Your task to perform on an android device: add a label to a message in the gmail app Image 0: 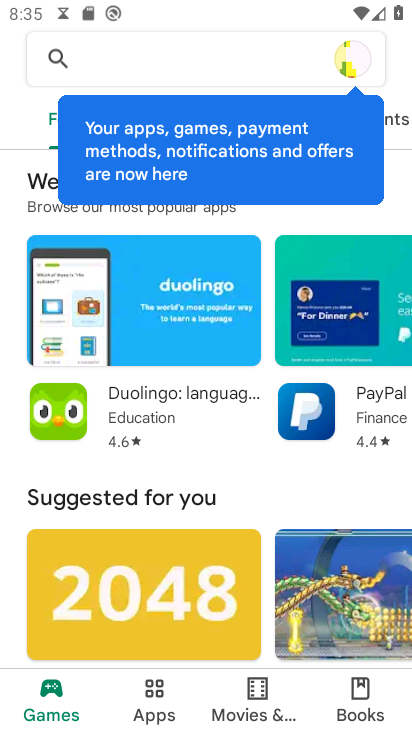
Step 0: press home button
Your task to perform on an android device: add a label to a message in the gmail app Image 1: 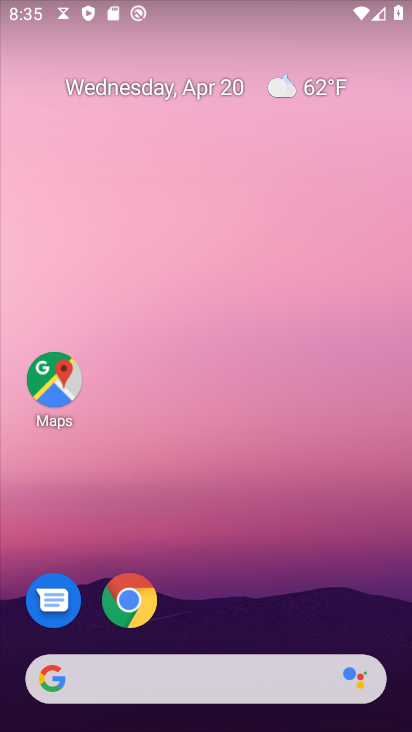
Step 1: drag from (212, 722) to (215, 126)
Your task to perform on an android device: add a label to a message in the gmail app Image 2: 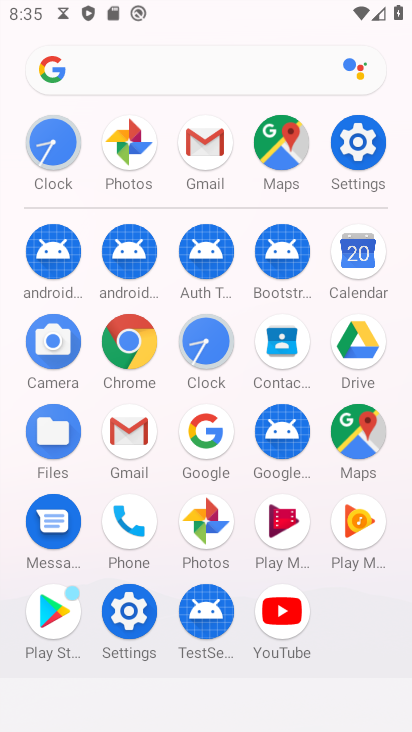
Step 2: click (129, 430)
Your task to perform on an android device: add a label to a message in the gmail app Image 3: 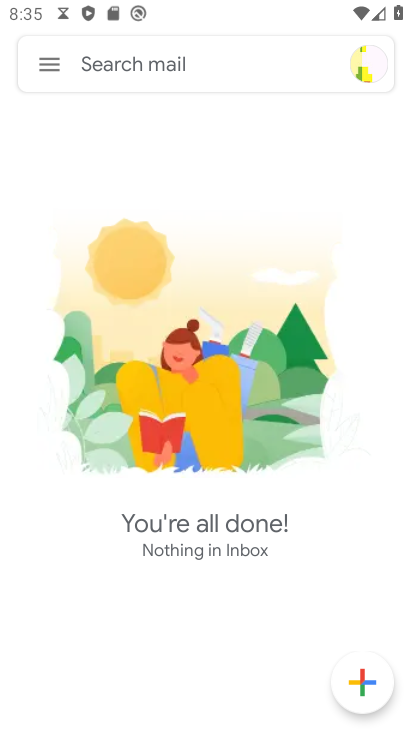
Step 3: task complete